Your task to perform on an android device: check google app version Image 0: 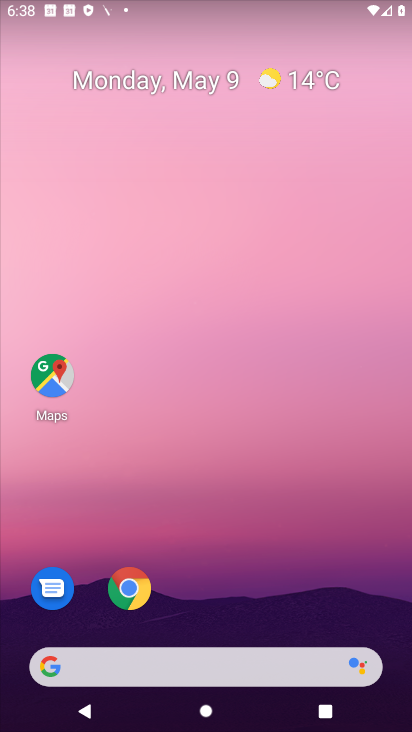
Step 0: drag from (341, 600) to (296, 0)
Your task to perform on an android device: check google app version Image 1: 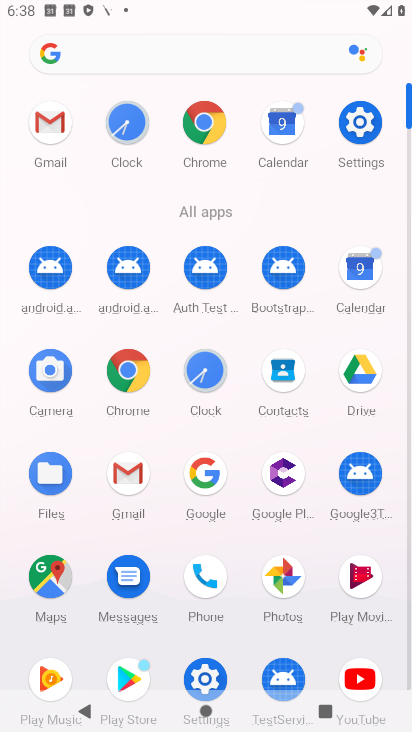
Step 1: click (210, 479)
Your task to perform on an android device: check google app version Image 2: 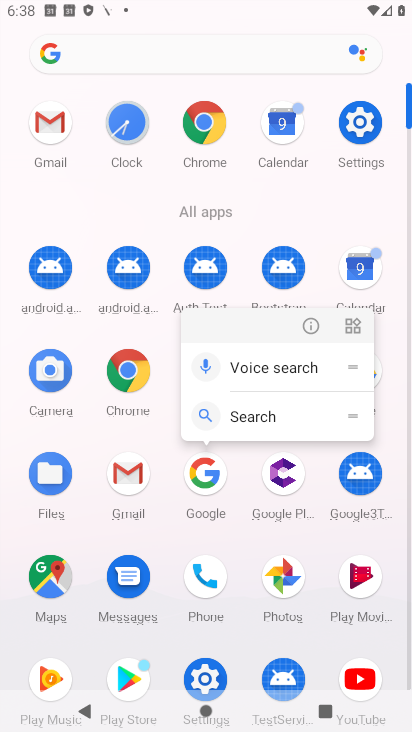
Step 2: click (314, 321)
Your task to perform on an android device: check google app version Image 3: 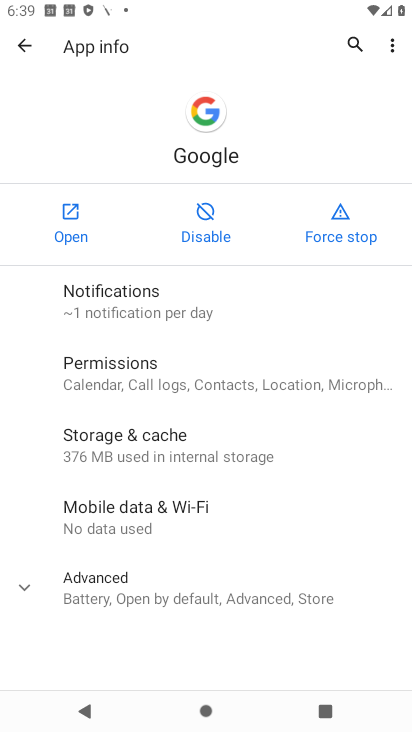
Step 3: click (33, 575)
Your task to perform on an android device: check google app version Image 4: 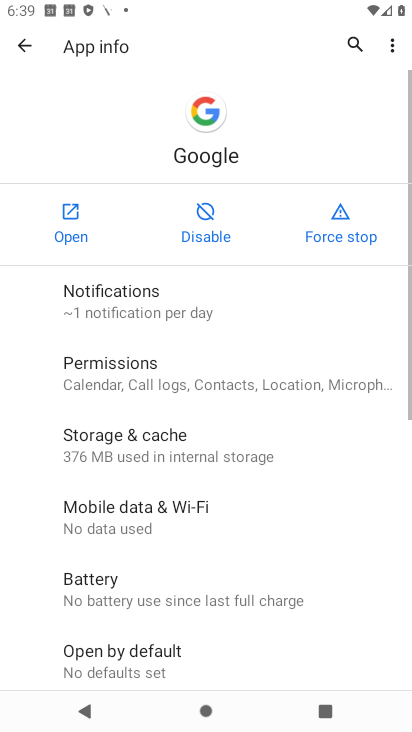
Step 4: task complete